Your task to perform on an android device: Go to settings Image 0: 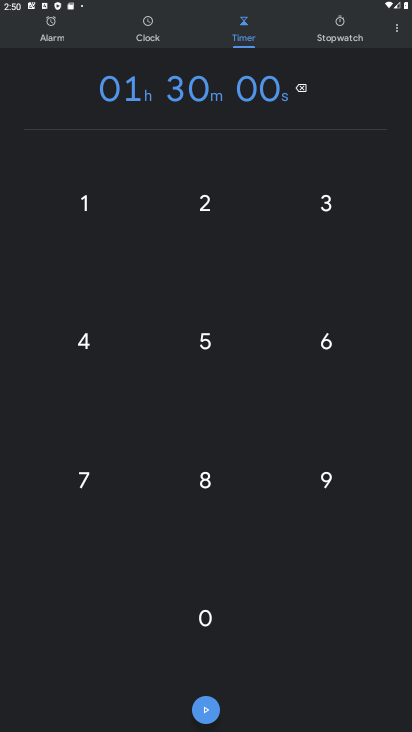
Step 0: press home button
Your task to perform on an android device: Go to settings Image 1: 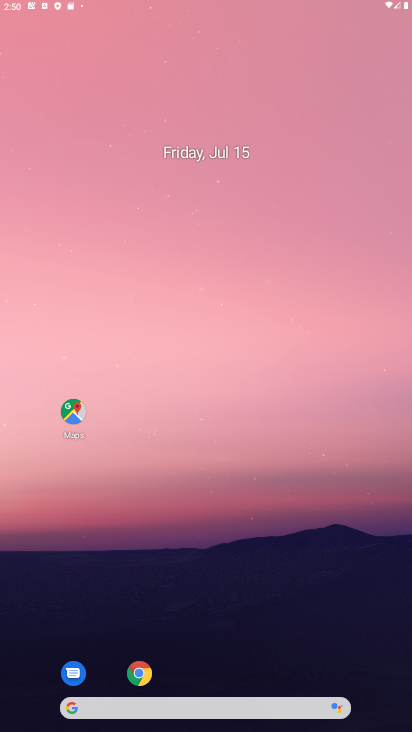
Step 1: drag from (389, 662) to (346, 145)
Your task to perform on an android device: Go to settings Image 2: 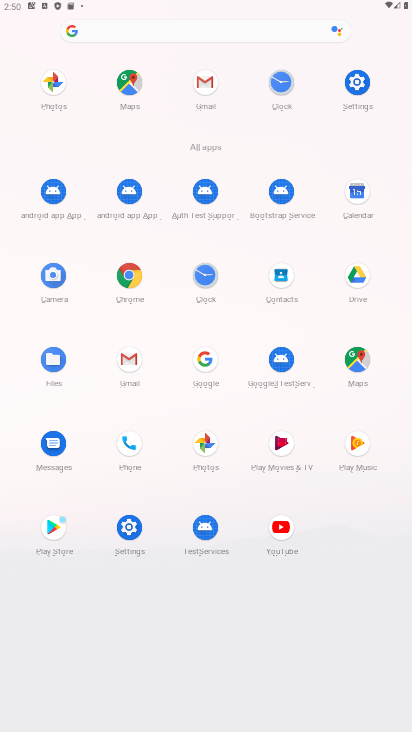
Step 2: click (129, 526)
Your task to perform on an android device: Go to settings Image 3: 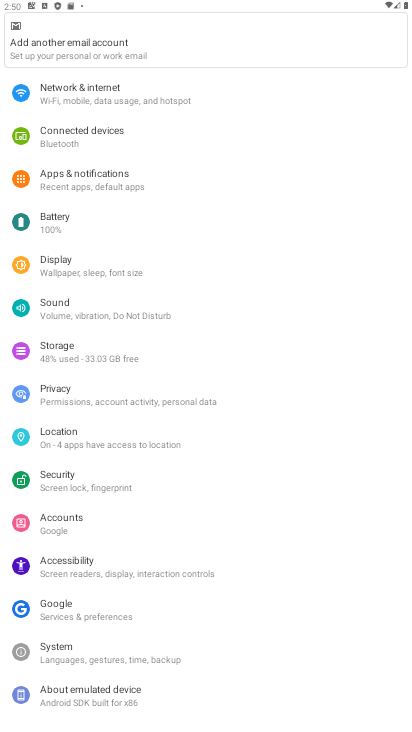
Step 3: task complete